Your task to perform on an android device: turn on notifications settings in the gmail app Image 0: 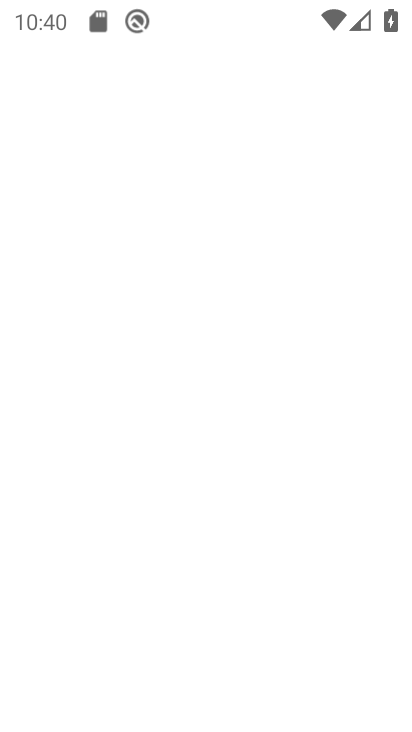
Step 0: press home button
Your task to perform on an android device: turn on notifications settings in the gmail app Image 1: 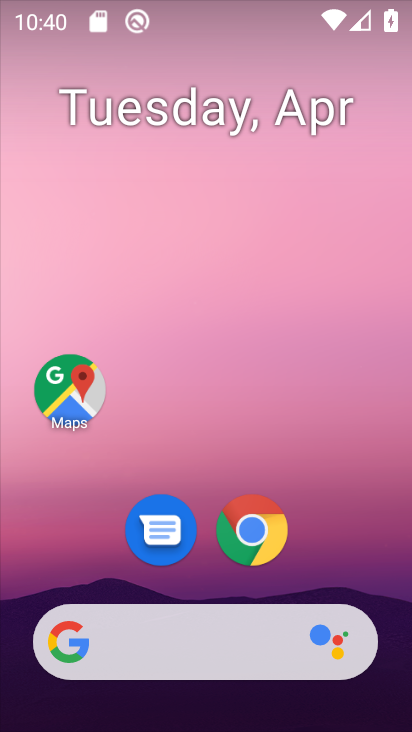
Step 1: drag from (259, 421) to (337, 103)
Your task to perform on an android device: turn on notifications settings in the gmail app Image 2: 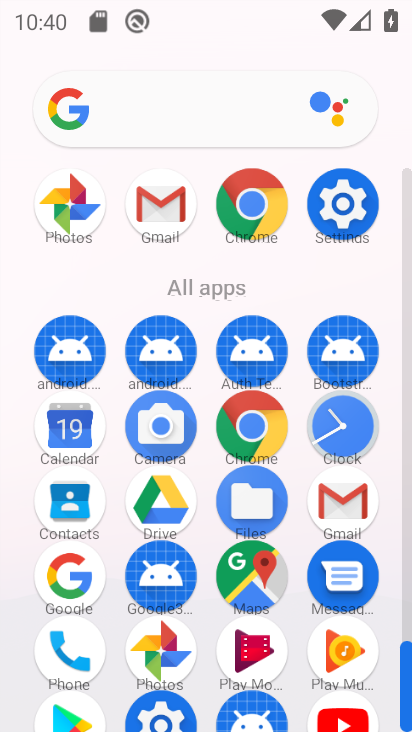
Step 2: click (156, 223)
Your task to perform on an android device: turn on notifications settings in the gmail app Image 3: 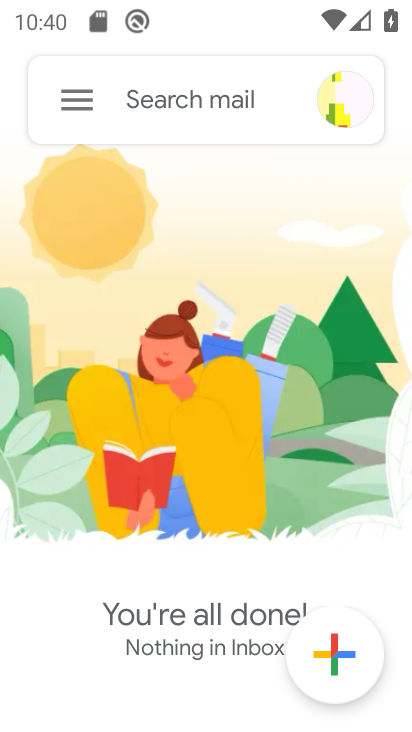
Step 3: click (68, 106)
Your task to perform on an android device: turn on notifications settings in the gmail app Image 4: 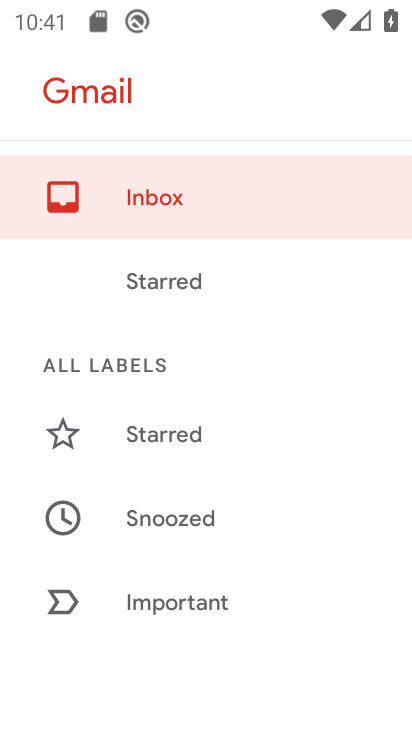
Step 4: drag from (238, 599) to (374, 185)
Your task to perform on an android device: turn on notifications settings in the gmail app Image 5: 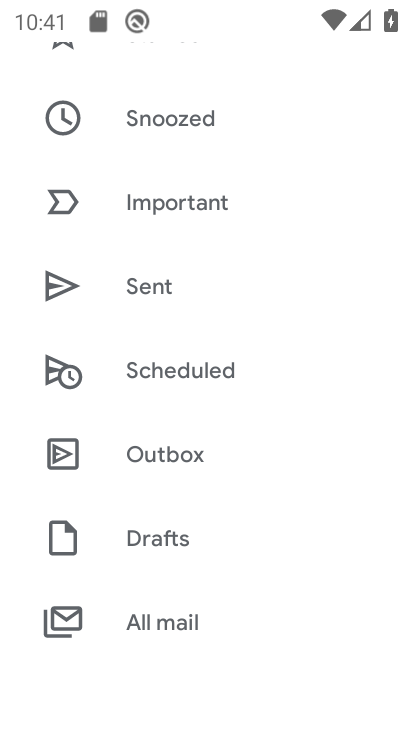
Step 5: drag from (262, 596) to (409, 69)
Your task to perform on an android device: turn on notifications settings in the gmail app Image 6: 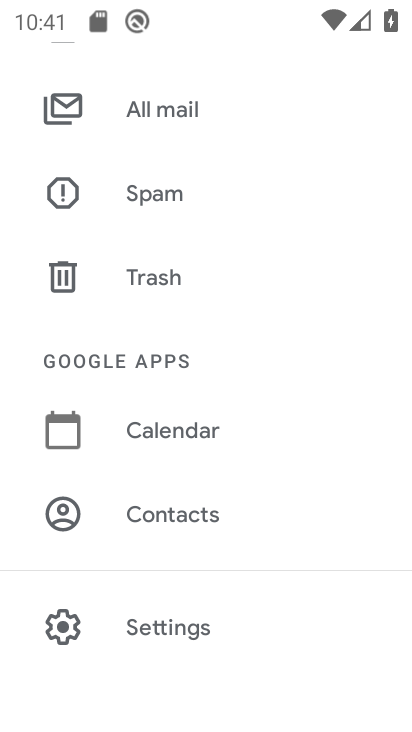
Step 6: click (181, 624)
Your task to perform on an android device: turn on notifications settings in the gmail app Image 7: 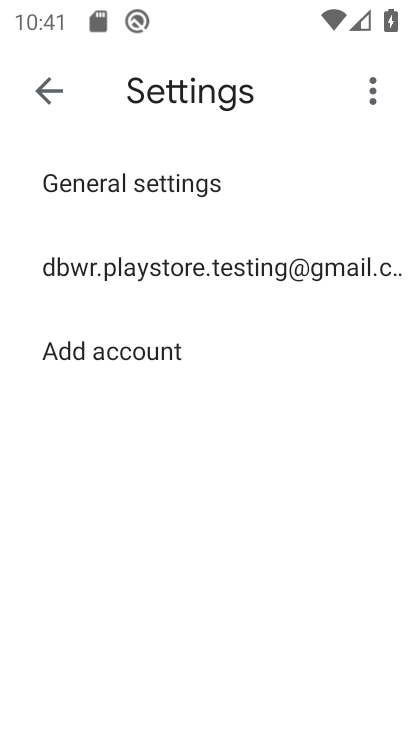
Step 7: click (211, 266)
Your task to perform on an android device: turn on notifications settings in the gmail app Image 8: 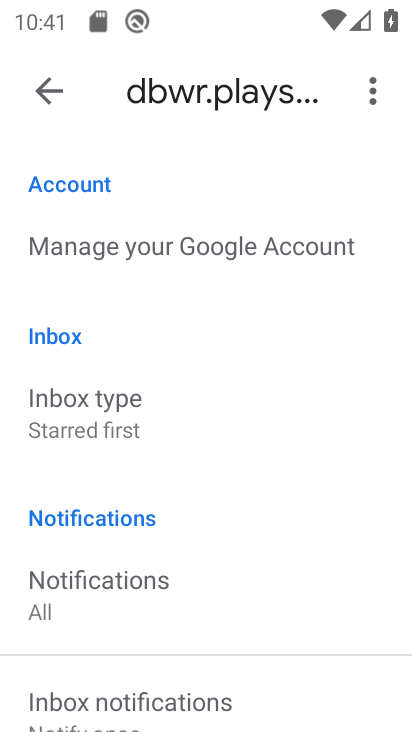
Step 8: click (115, 577)
Your task to perform on an android device: turn on notifications settings in the gmail app Image 9: 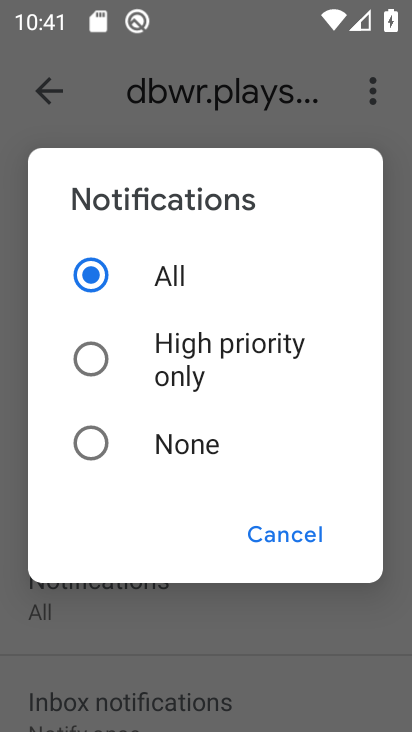
Step 9: task complete